Your task to perform on an android device: Show me popular games on the Play Store Image 0: 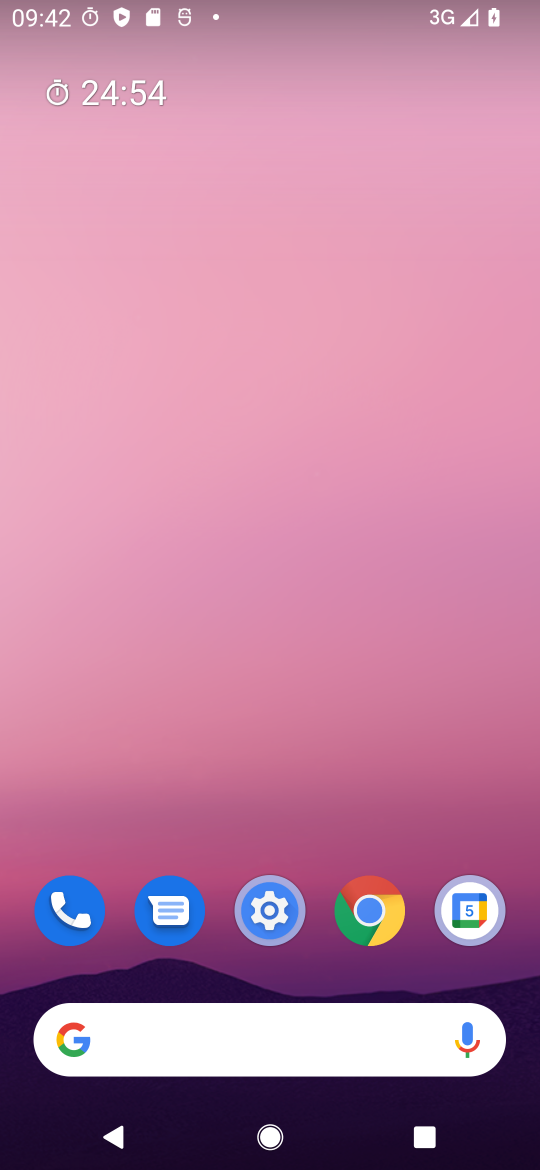
Step 0: drag from (220, 1026) to (204, 85)
Your task to perform on an android device: Show me popular games on the Play Store Image 1: 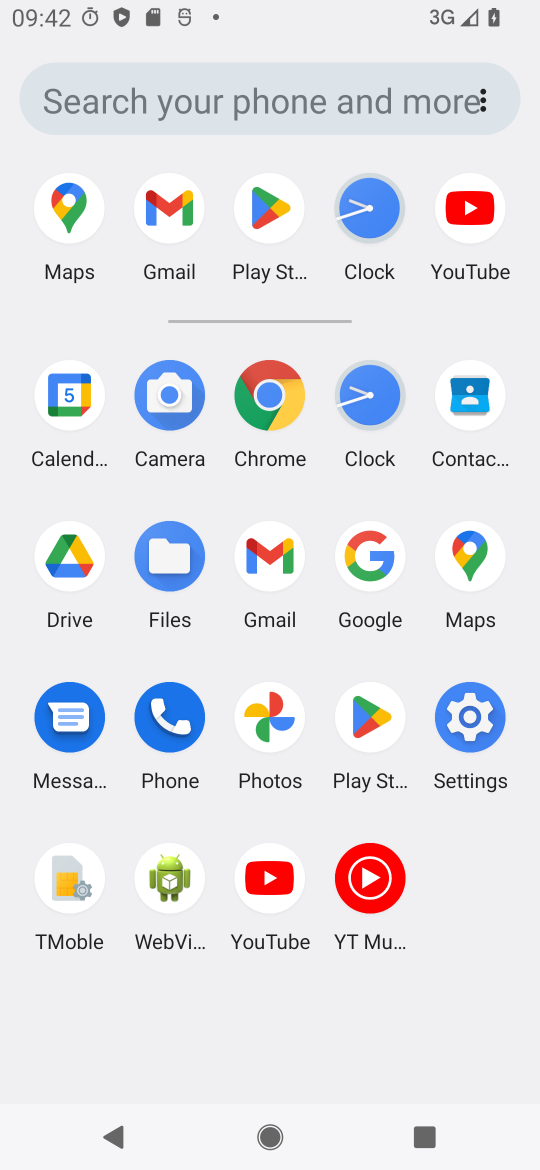
Step 1: click (377, 729)
Your task to perform on an android device: Show me popular games on the Play Store Image 2: 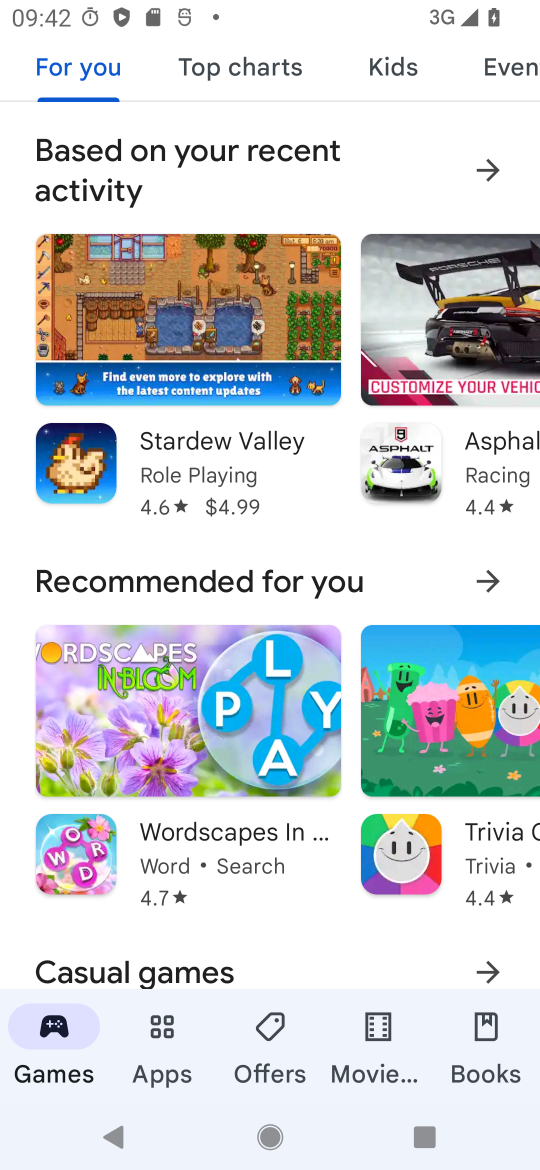
Step 2: task complete